Your task to perform on an android device: turn off picture-in-picture Image 0: 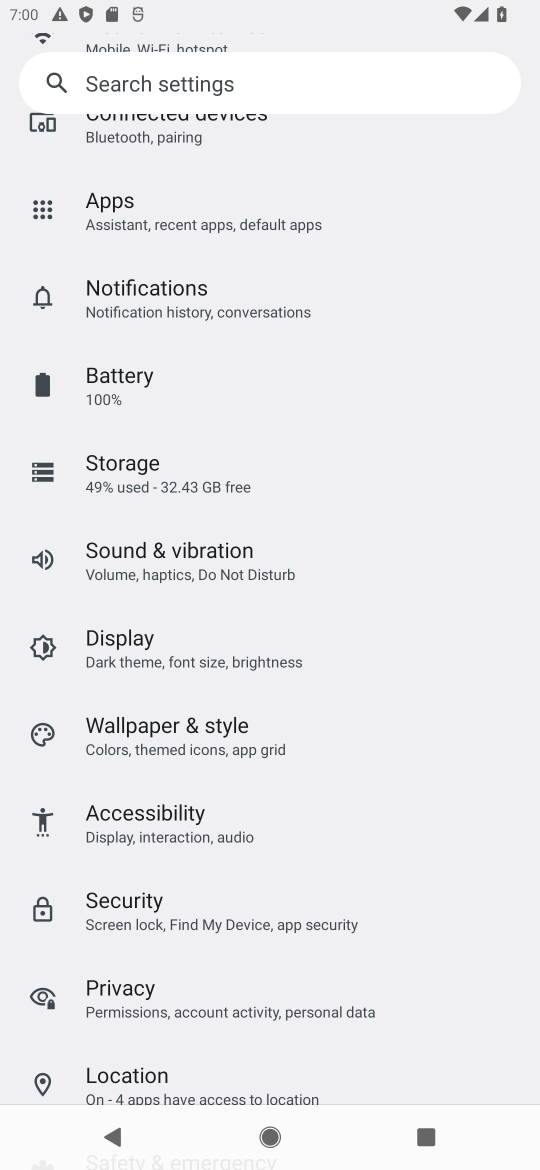
Step 0: press home button
Your task to perform on an android device: turn off picture-in-picture Image 1: 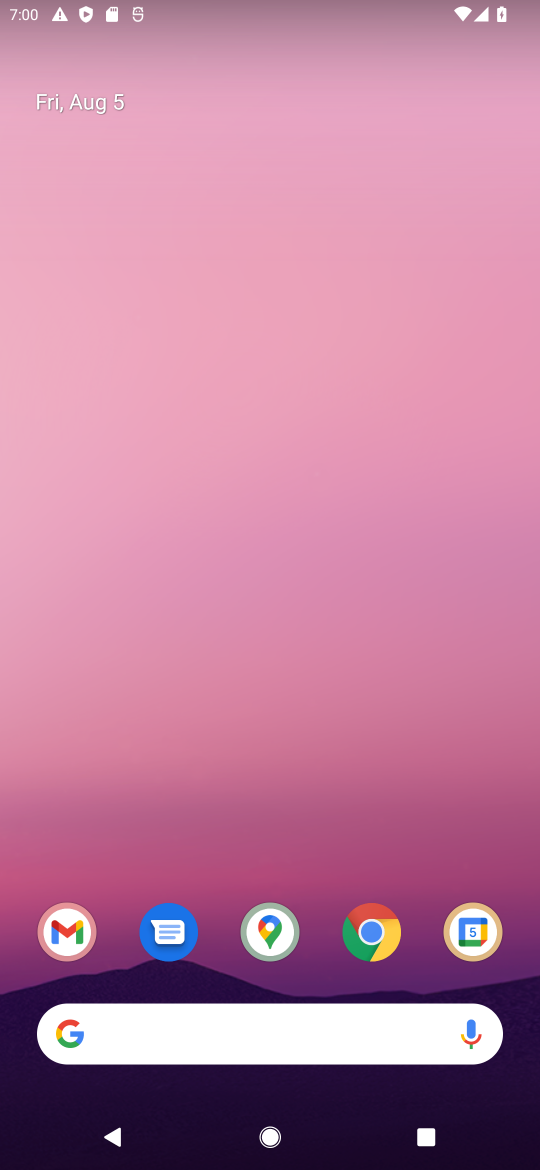
Step 1: click (368, 934)
Your task to perform on an android device: turn off picture-in-picture Image 2: 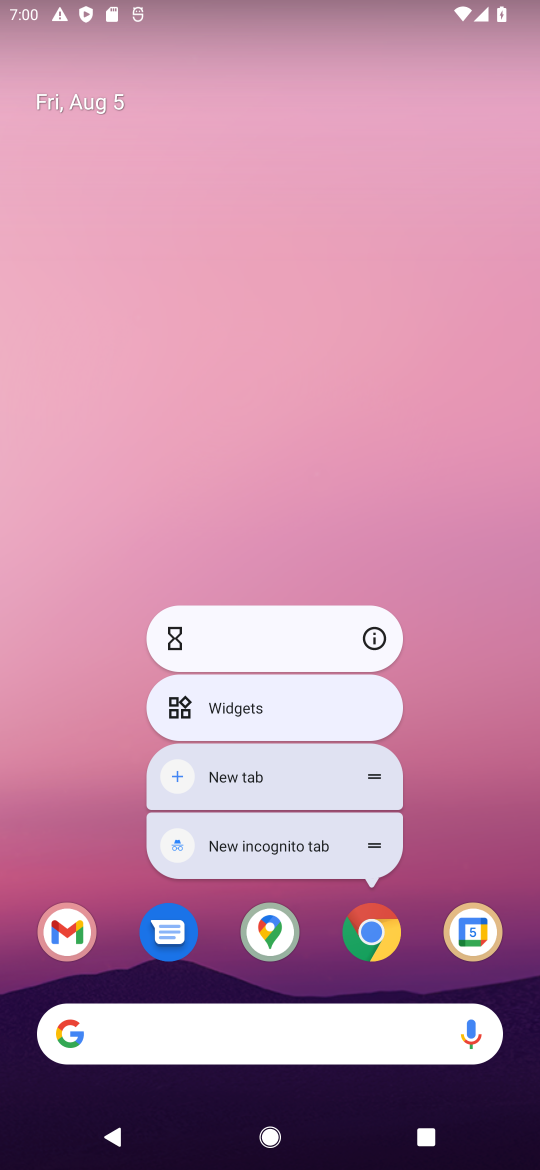
Step 2: click (380, 632)
Your task to perform on an android device: turn off picture-in-picture Image 3: 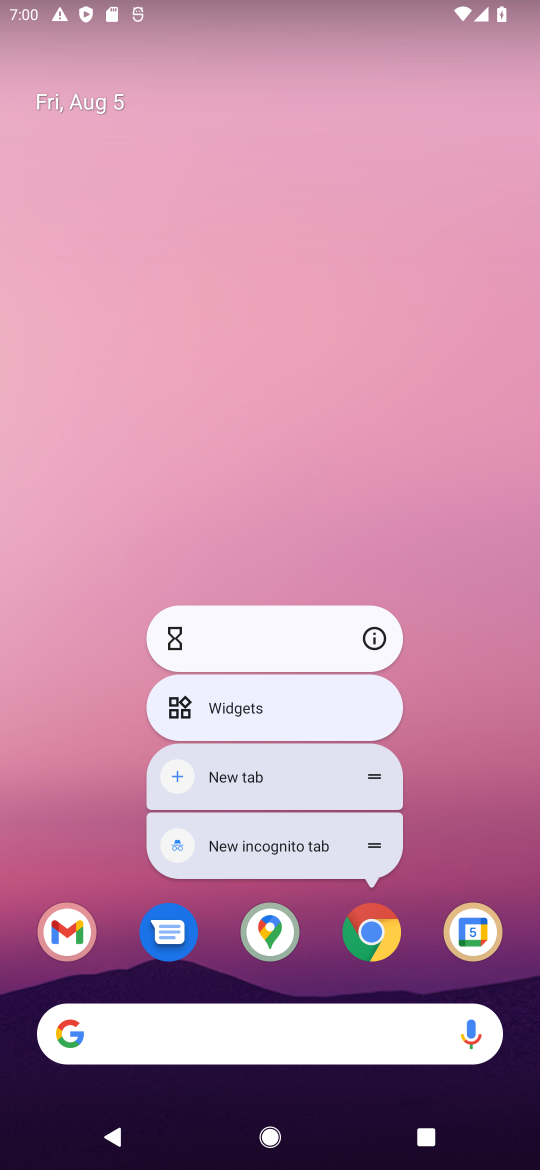
Step 3: click (380, 632)
Your task to perform on an android device: turn off picture-in-picture Image 4: 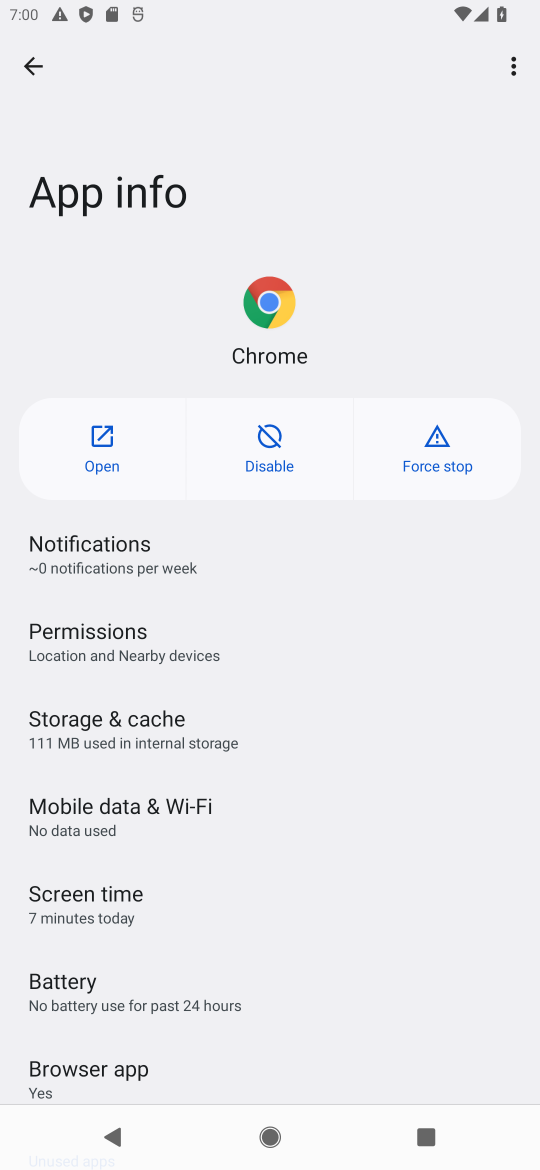
Step 4: drag from (201, 929) to (344, 678)
Your task to perform on an android device: turn off picture-in-picture Image 5: 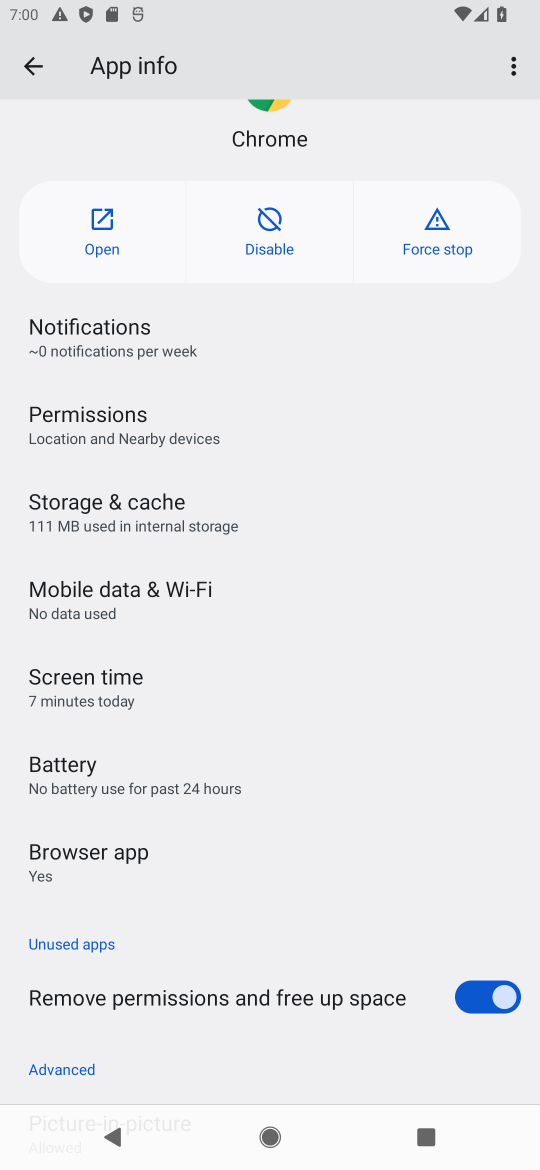
Step 5: drag from (138, 966) to (207, 730)
Your task to perform on an android device: turn off picture-in-picture Image 6: 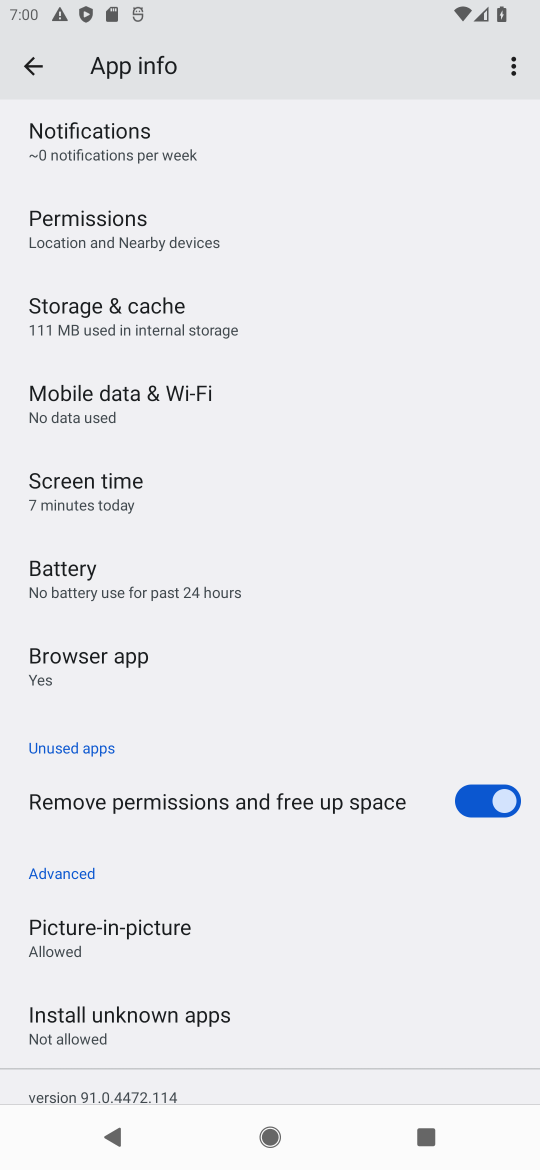
Step 6: drag from (217, 976) to (259, 857)
Your task to perform on an android device: turn off picture-in-picture Image 7: 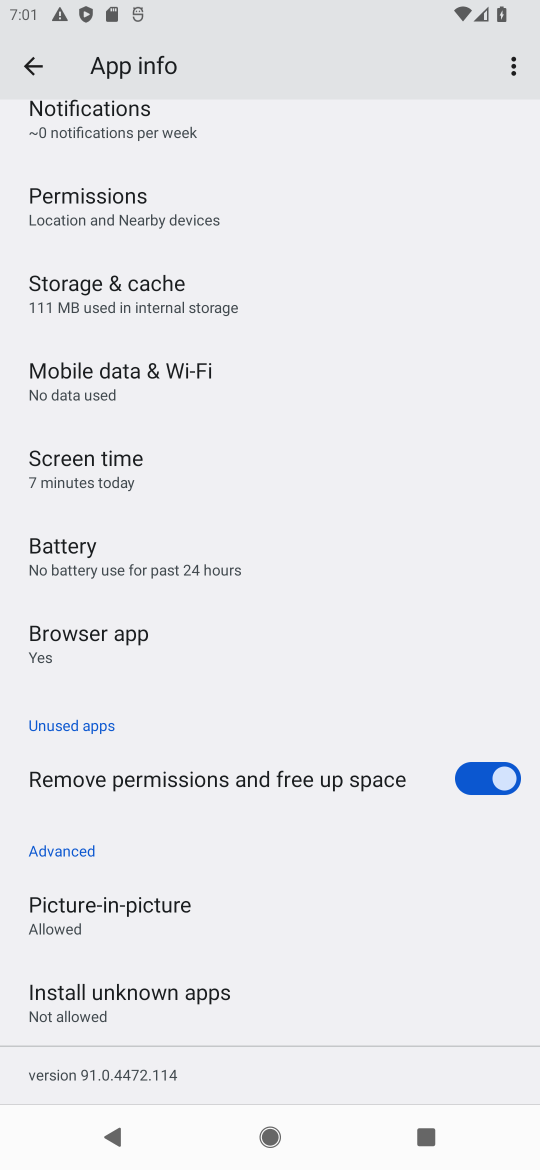
Step 7: click (136, 910)
Your task to perform on an android device: turn off picture-in-picture Image 8: 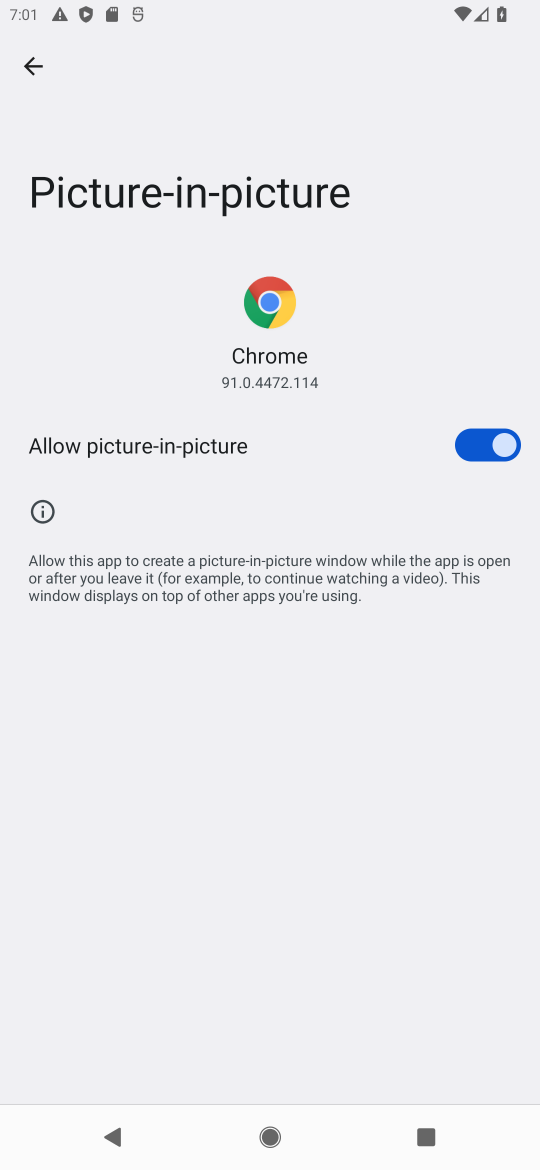
Step 8: click (479, 449)
Your task to perform on an android device: turn off picture-in-picture Image 9: 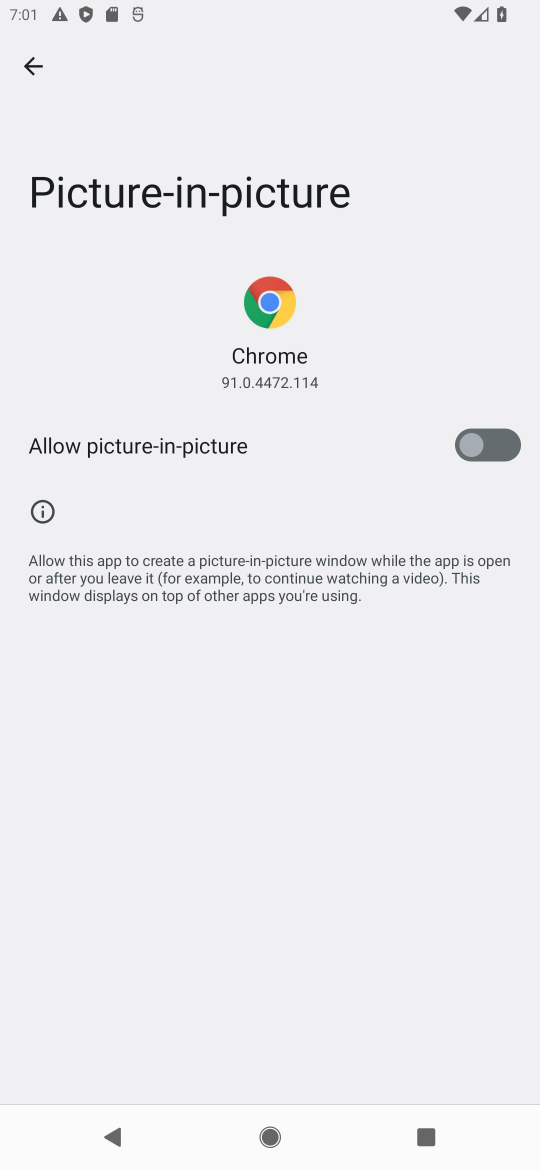
Step 9: task complete